Your task to perform on an android device: Find coffee shops on Maps Image 0: 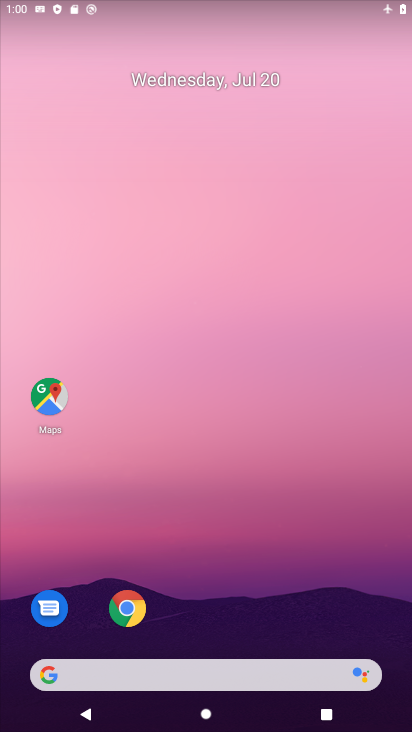
Step 0: drag from (293, 0) to (343, 425)
Your task to perform on an android device: Find coffee shops on Maps Image 1: 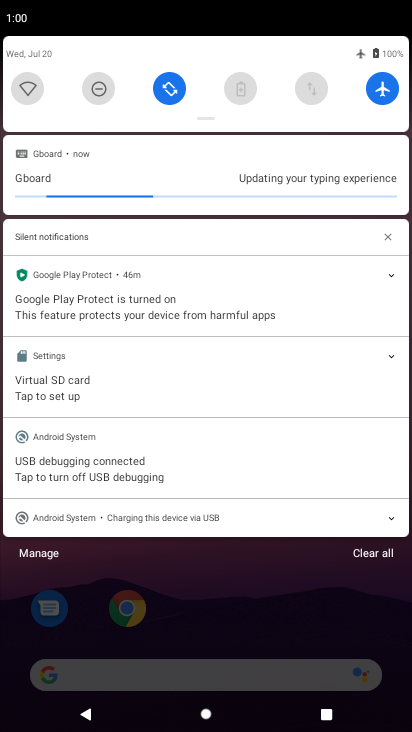
Step 1: click (391, 87)
Your task to perform on an android device: Find coffee shops on Maps Image 2: 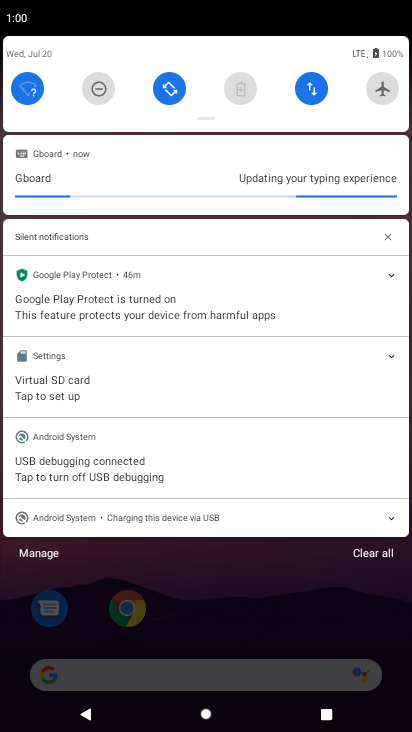
Step 2: click (378, 557)
Your task to perform on an android device: Find coffee shops on Maps Image 3: 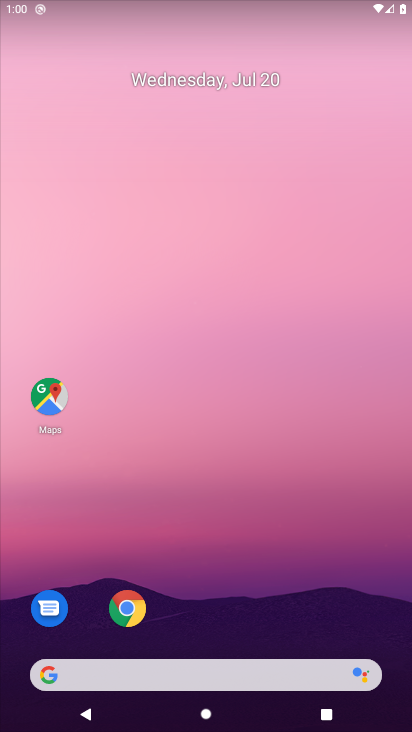
Step 3: click (46, 393)
Your task to perform on an android device: Find coffee shops on Maps Image 4: 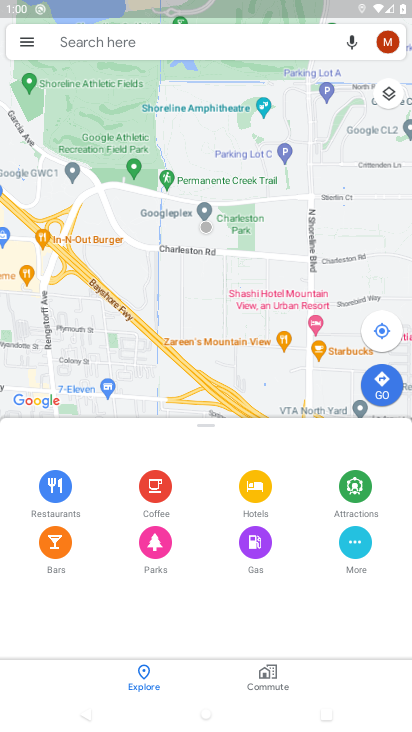
Step 4: click (146, 40)
Your task to perform on an android device: Find coffee shops on Maps Image 5: 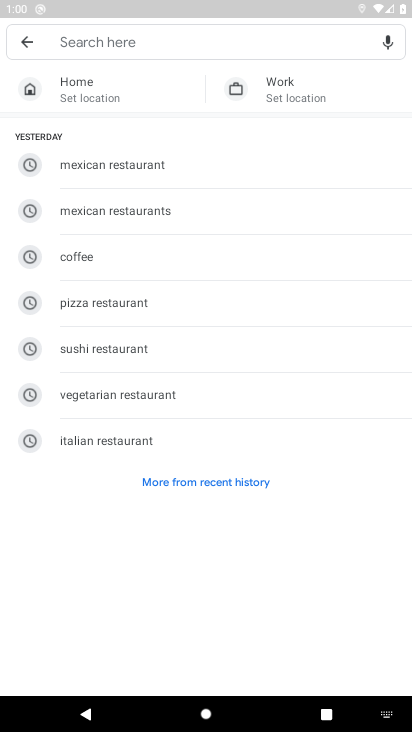
Step 5: click (87, 261)
Your task to perform on an android device: Find coffee shops on Maps Image 6: 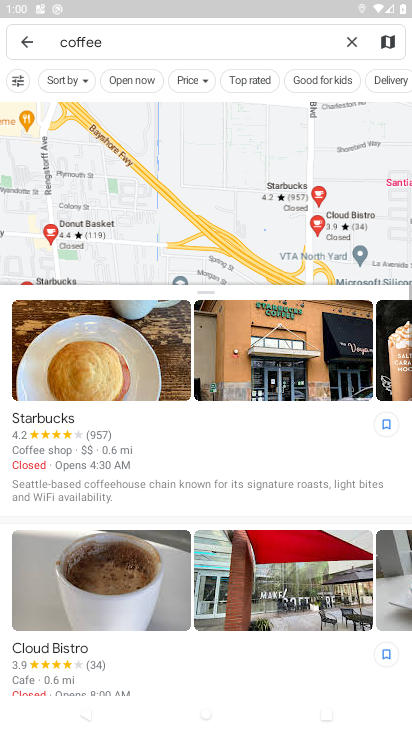
Step 6: task complete